Your task to perform on an android device: What's the weather today? Image 0: 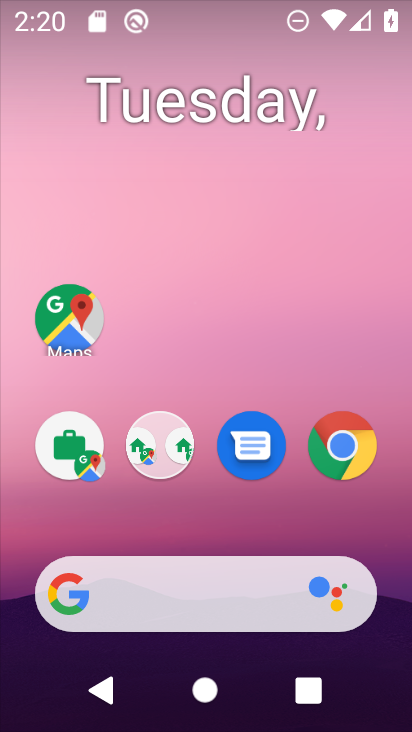
Step 0: drag from (246, 535) to (252, 455)
Your task to perform on an android device: What's the weather today? Image 1: 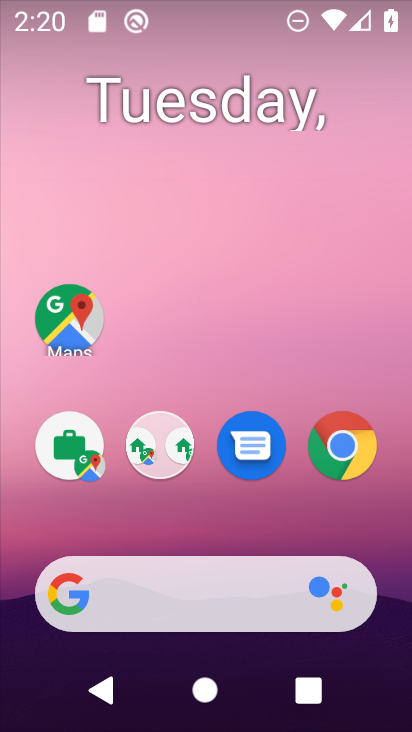
Step 1: click (163, 606)
Your task to perform on an android device: What's the weather today? Image 2: 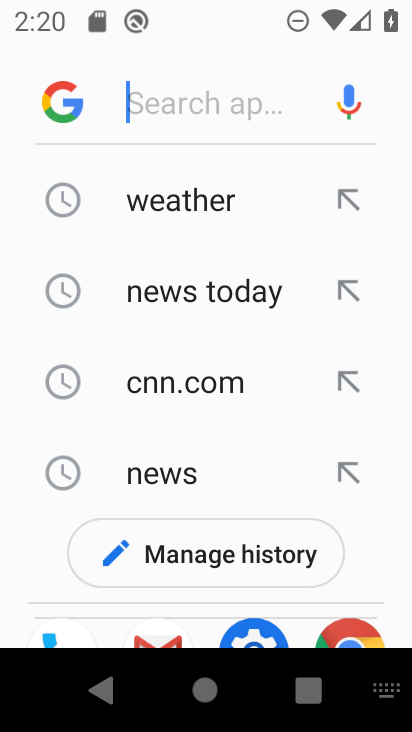
Step 2: press back button
Your task to perform on an android device: What's the weather today? Image 3: 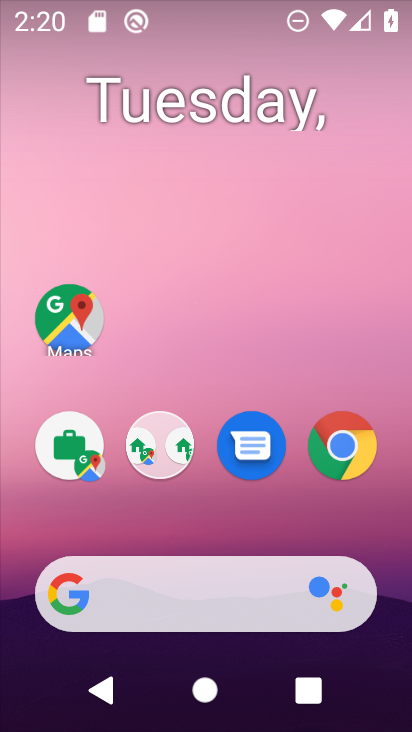
Step 3: click (177, 565)
Your task to perform on an android device: What's the weather today? Image 4: 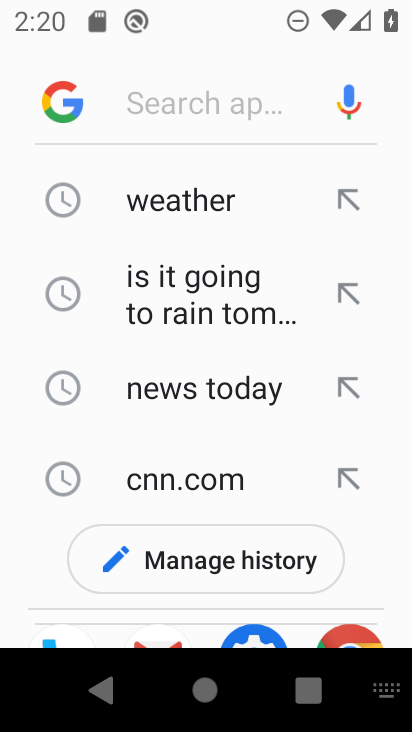
Step 4: click (56, 95)
Your task to perform on an android device: What's the weather today? Image 5: 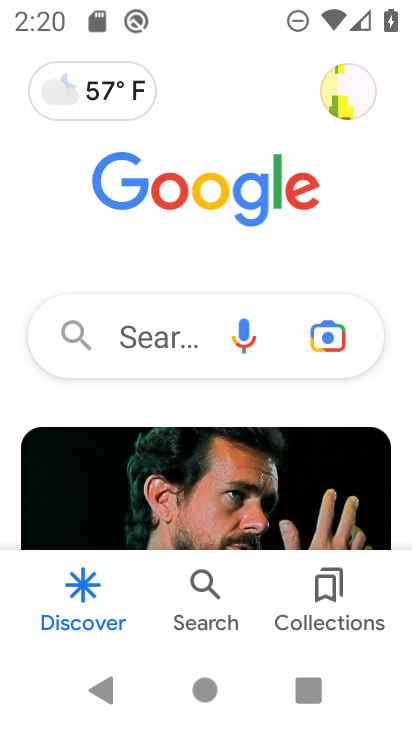
Step 5: task complete